Your task to perform on an android device: Go to Yahoo.com Image 0: 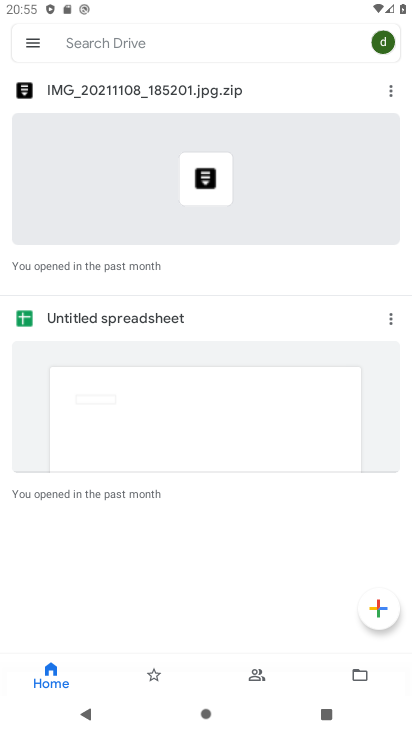
Step 0: press home button
Your task to perform on an android device: Go to Yahoo.com Image 1: 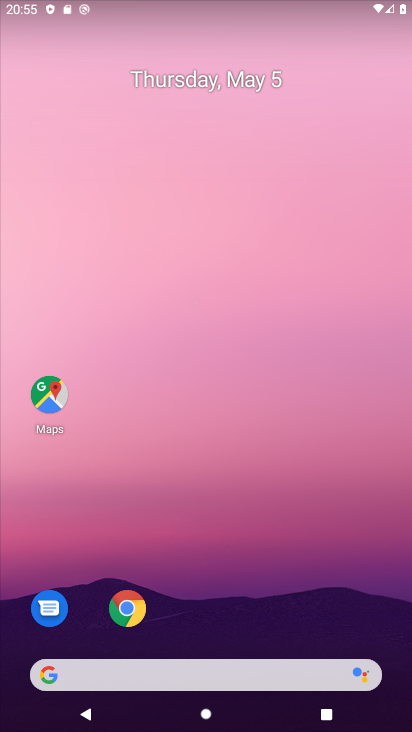
Step 1: drag from (230, 671) to (233, 67)
Your task to perform on an android device: Go to Yahoo.com Image 2: 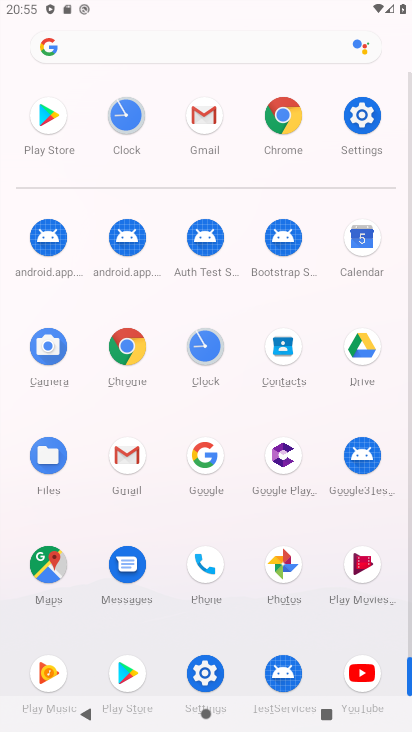
Step 2: click (123, 353)
Your task to perform on an android device: Go to Yahoo.com Image 3: 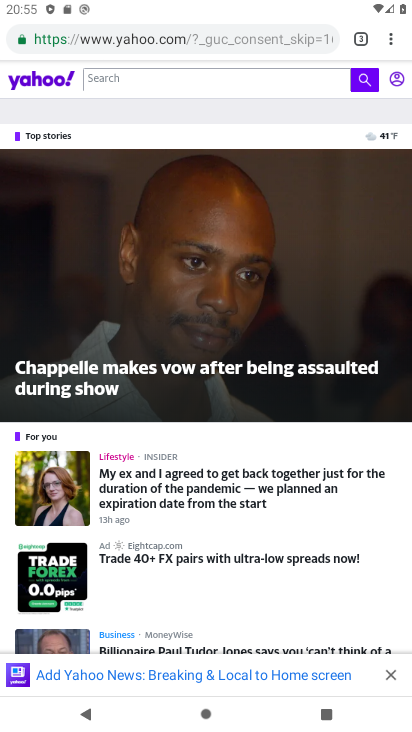
Step 3: click (303, 37)
Your task to perform on an android device: Go to Yahoo.com Image 4: 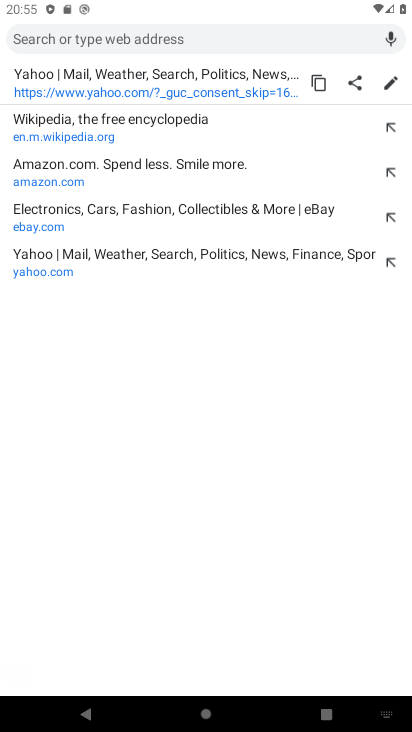
Step 4: type "yahoo.com"
Your task to perform on an android device: Go to Yahoo.com Image 5: 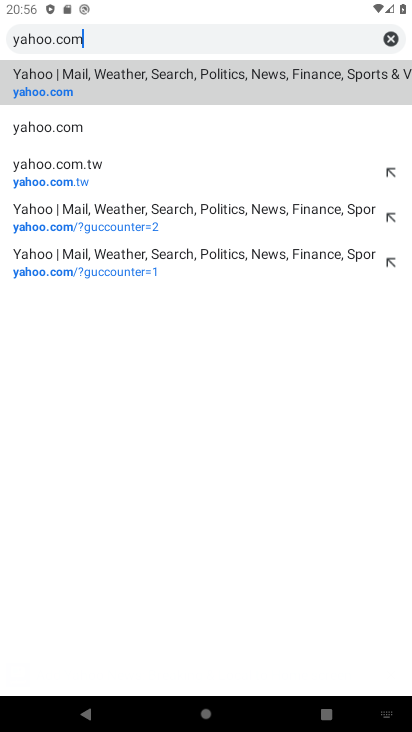
Step 5: click (229, 88)
Your task to perform on an android device: Go to Yahoo.com Image 6: 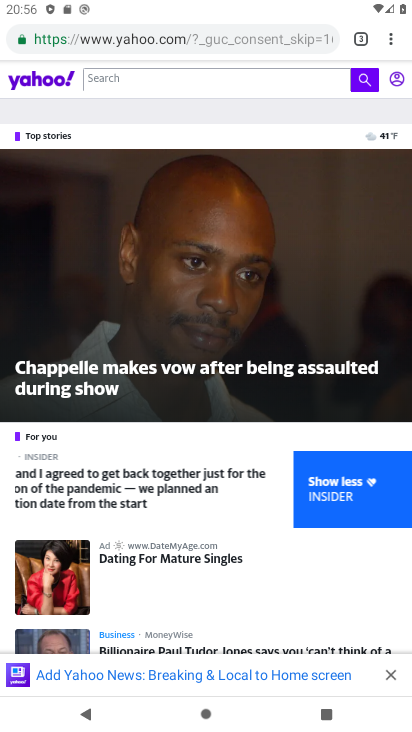
Step 6: task complete